Your task to perform on an android device: turn off priority inbox in the gmail app Image 0: 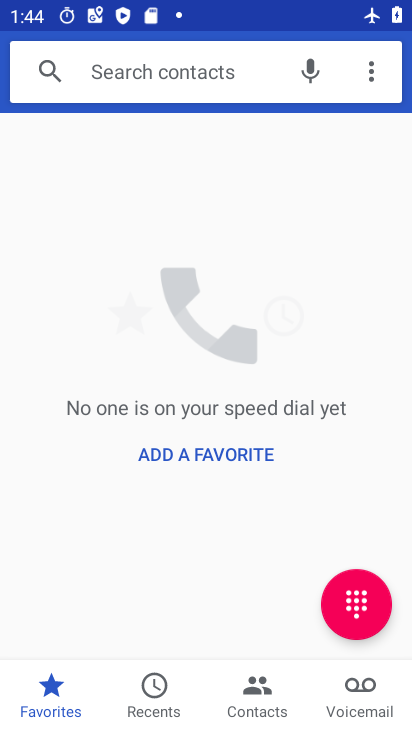
Step 0: press home button
Your task to perform on an android device: turn off priority inbox in the gmail app Image 1: 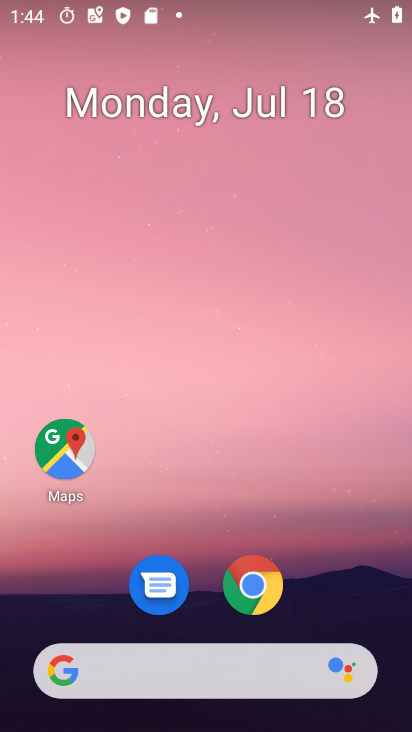
Step 1: click (295, 63)
Your task to perform on an android device: turn off priority inbox in the gmail app Image 2: 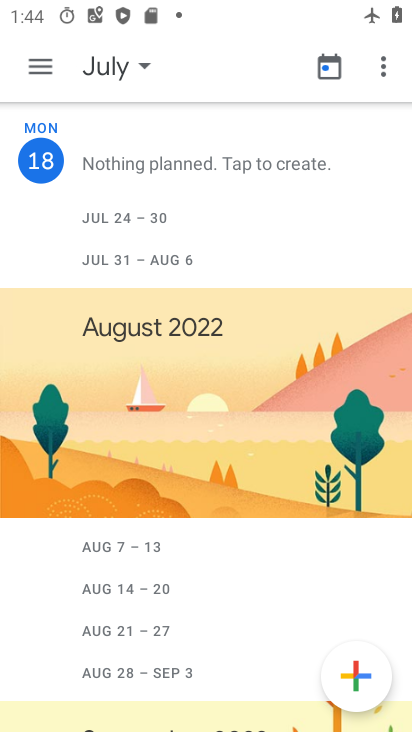
Step 2: press home button
Your task to perform on an android device: turn off priority inbox in the gmail app Image 3: 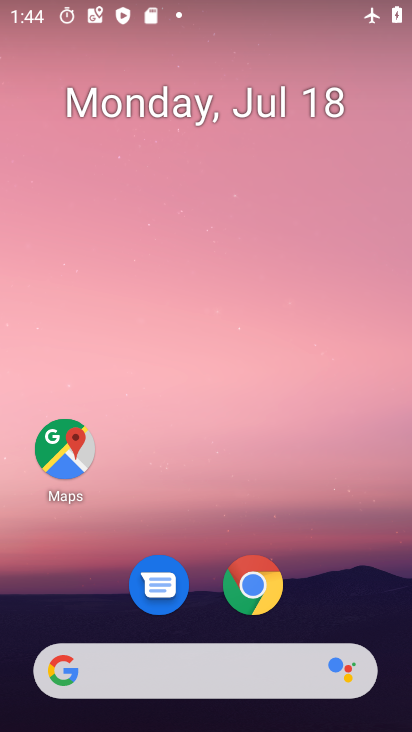
Step 3: drag from (186, 601) to (281, 83)
Your task to perform on an android device: turn off priority inbox in the gmail app Image 4: 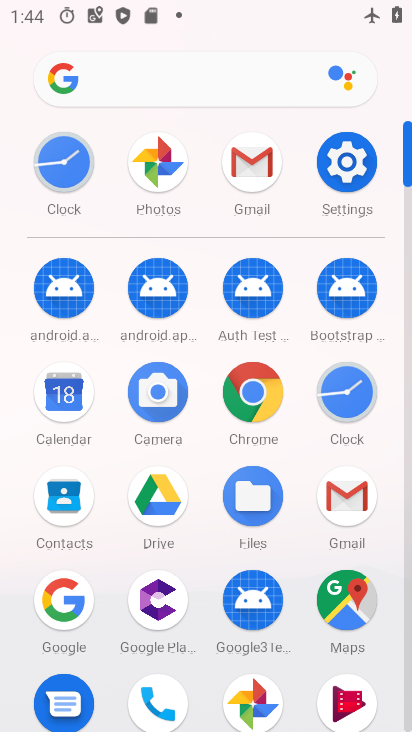
Step 4: click (252, 167)
Your task to perform on an android device: turn off priority inbox in the gmail app Image 5: 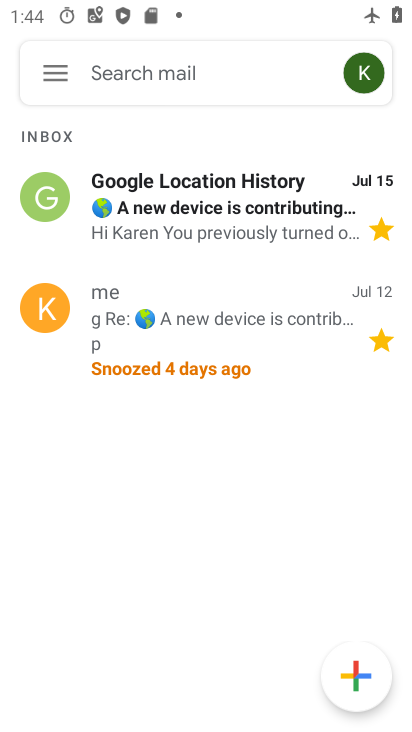
Step 5: click (45, 77)
Your task to perform on an android device: turn off priority inbox in the gmail app Image 6: 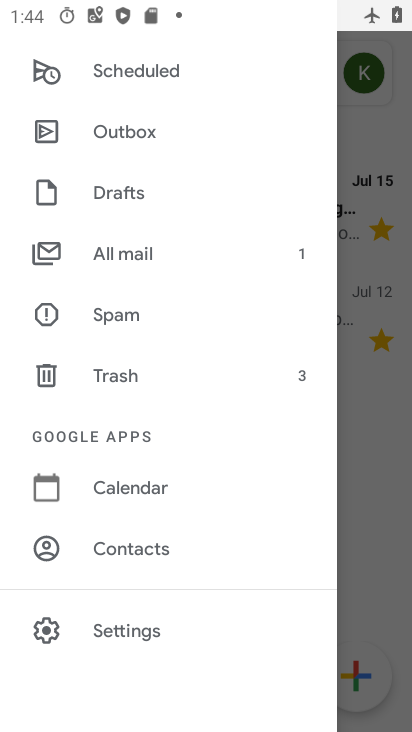
Step 6: click (141, 627)
Your task to perform on an android device: turn off priority inbox in the gmail app Image 7: 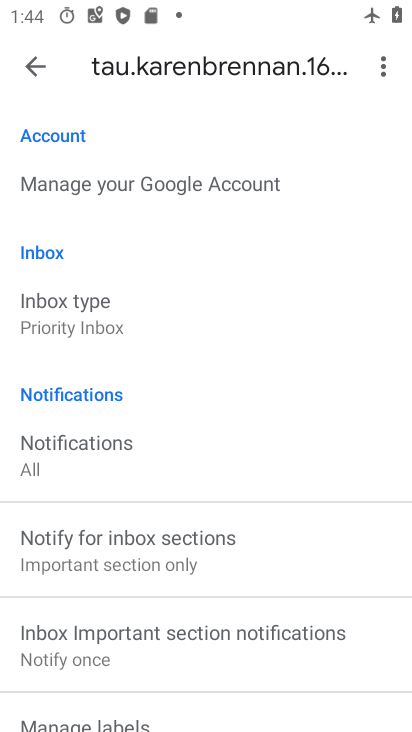
Step 7: click (62, 319)
Your task to perform on an android device: turn off priority inbox in the gmail app Image 8: 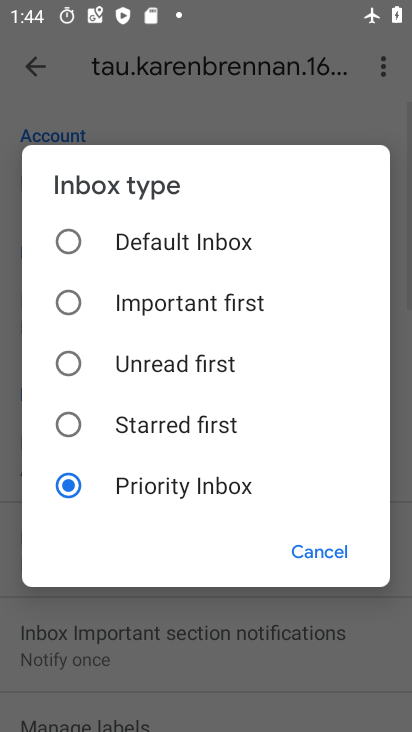
Step 8: click (65, 241)
Your task to perform on an android device: turn off priority inbox in the gmail app Image 9: 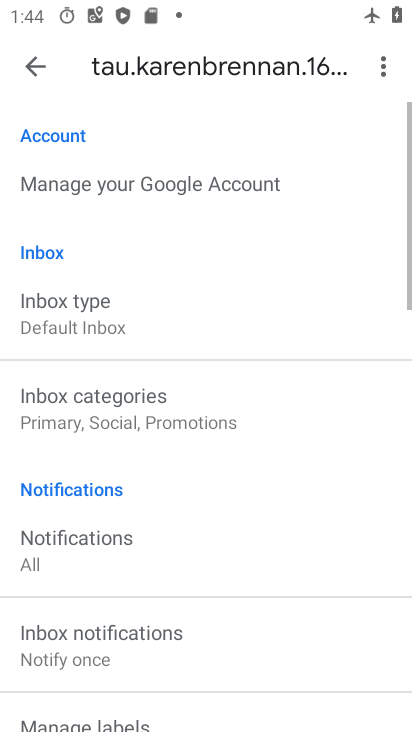
Step 9: task complete